Your task to perform on an android device: open app "Truecaller" Image 0: 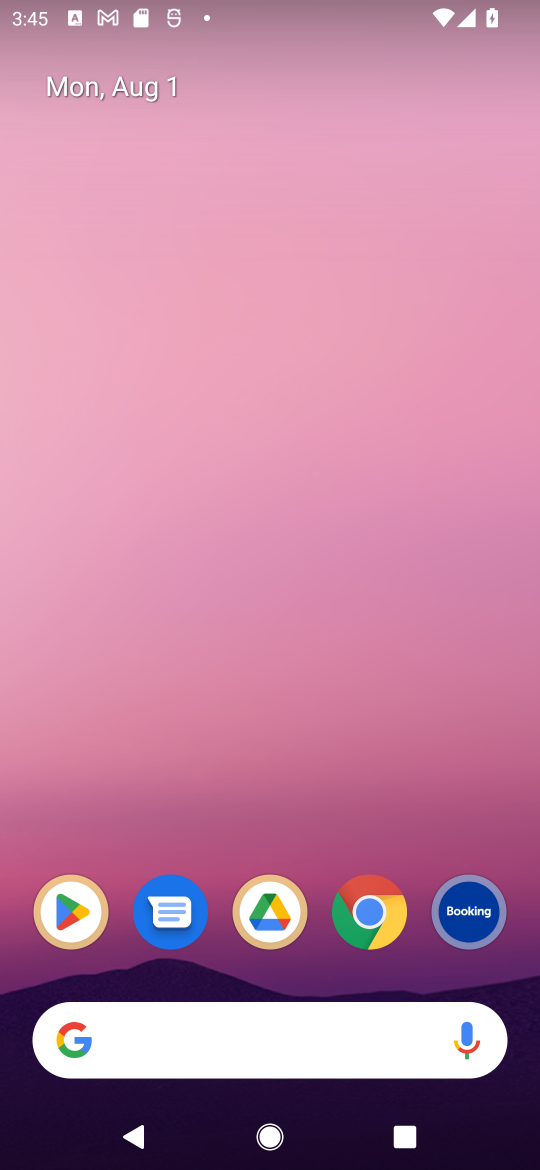
Step 0: click (82, 925)
Your task to perform on an android device: open app "Truecaller" Image 1: 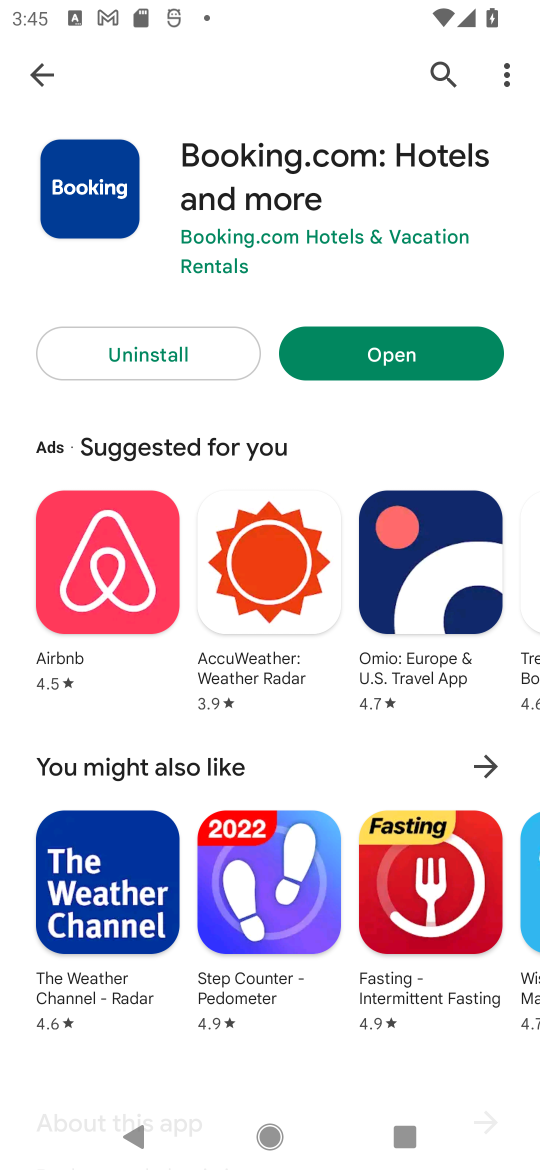
Step 1: click (438, 84)
Your task to perform on an android device: open app "Truecaller" Image 2: 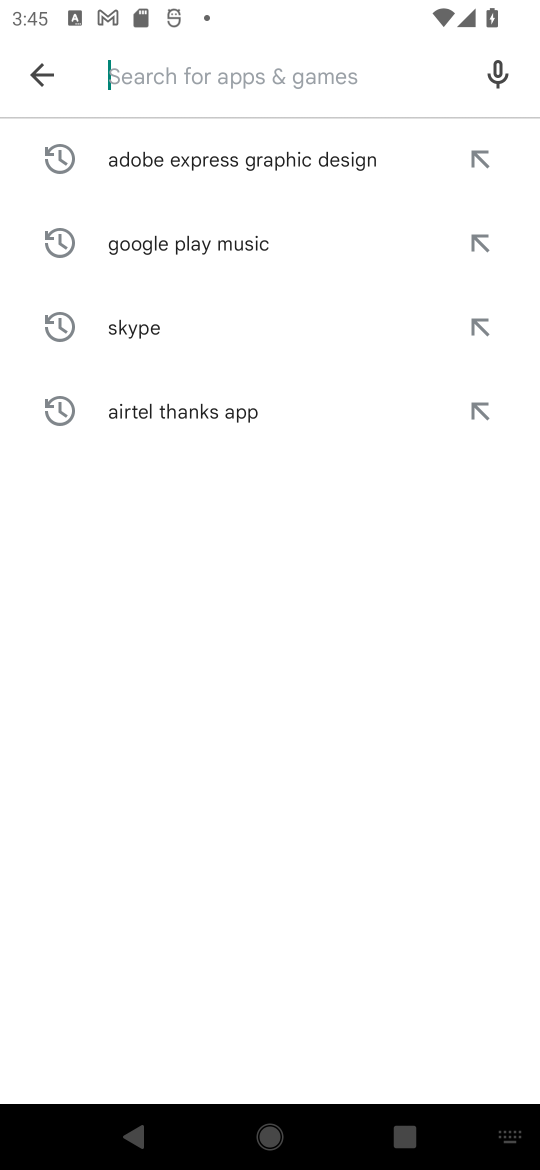
Step 2: type "Truecaller"
Your task to perform on an android device: open app "Truecaller" Image 3: 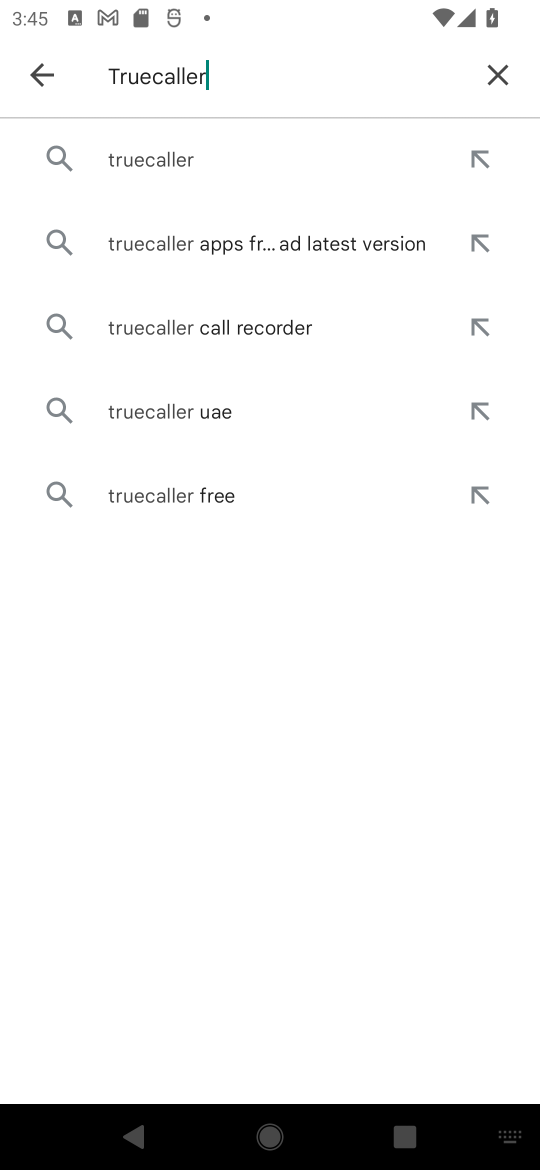
Step 3: click (147, 169)
Your task to perform on an android device: open app "Truecaller" Image 4: 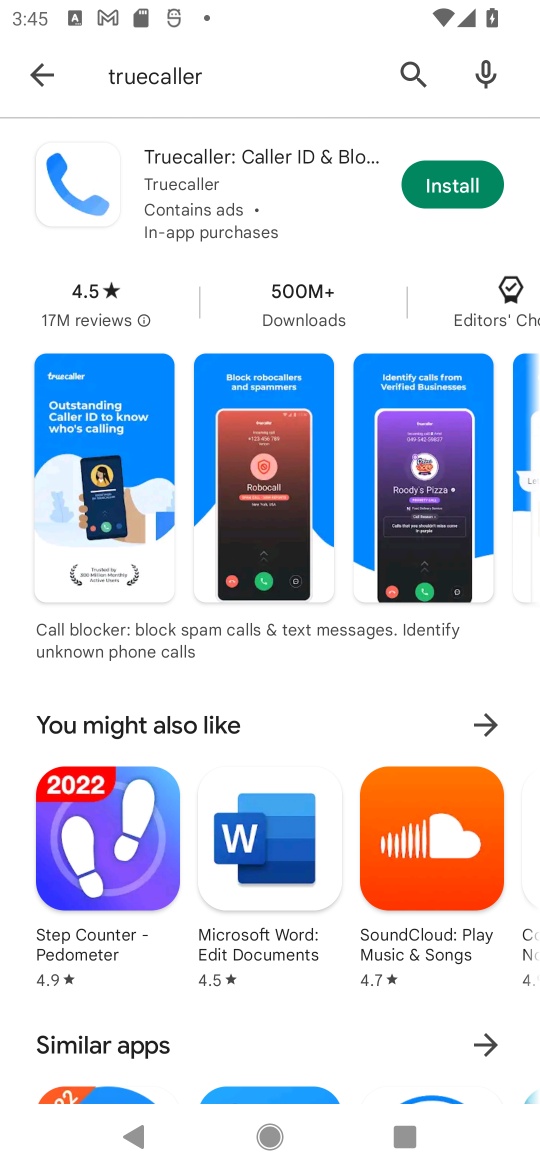
Step 4: task complete